Your task to perform on an android device: change alarm snooze length Image 0: 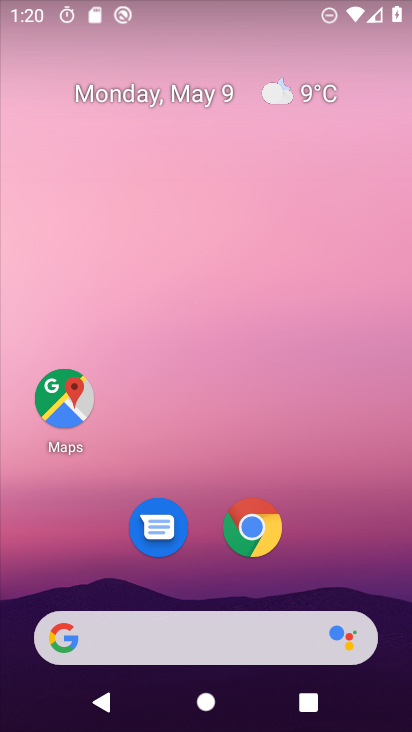
Step 0: drag from (189, 536) to (296, 18)
Your task to perform on an android device: change alarm snooze length Image 1: 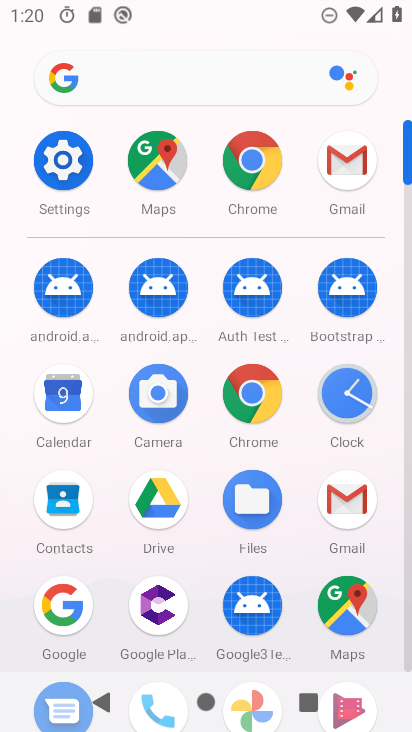
Step 1: click (355, 391)
Your task to perform on an android device: change alarm snooze length Image 2: 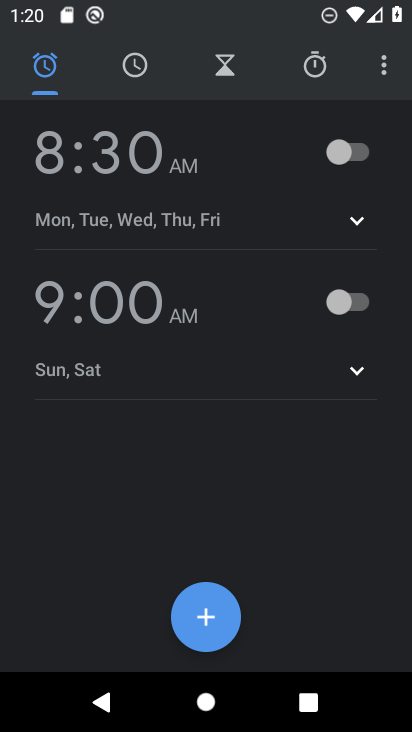
Step 2: click (389, 56)
Your task to perform on an android device: change alarm snooze length Image 3: 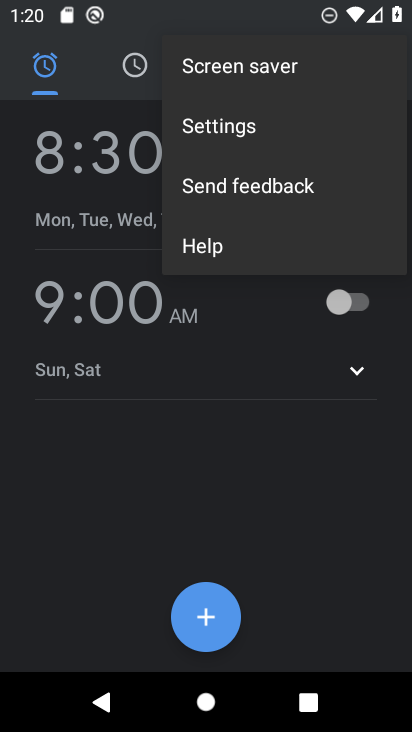
Step 3: click (315, 121)
Your task to perform on an android device: change alarm snooze length Image 4: 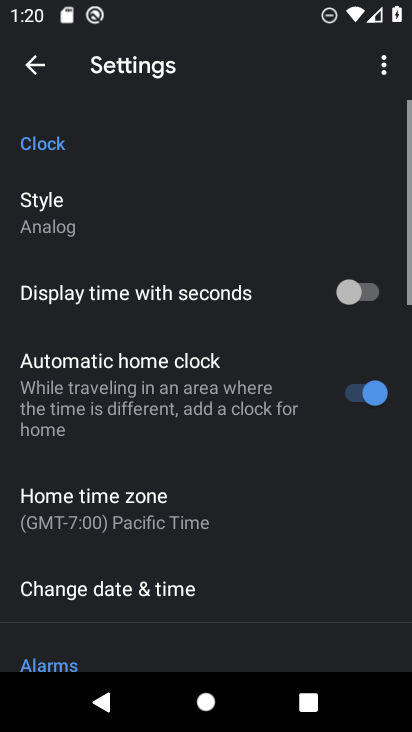
Step 4: drag from (210, 578) to (262, 5)
Your task to perform on an android device: change alarm snooze length Image 5: 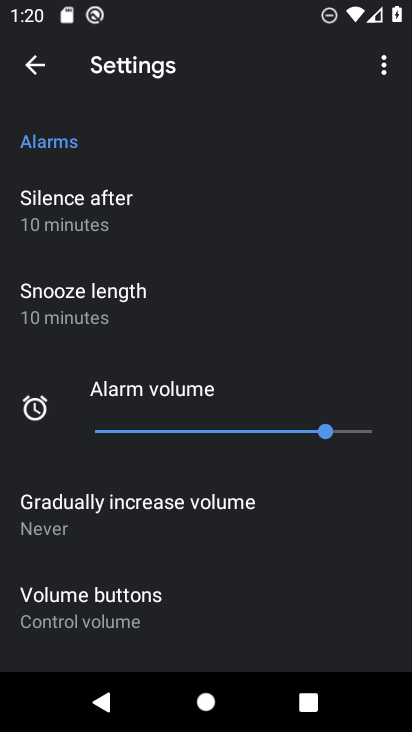
Step 5: click (116, 300)
Your task to perform on an android device: change alarm snooze length Image 6: 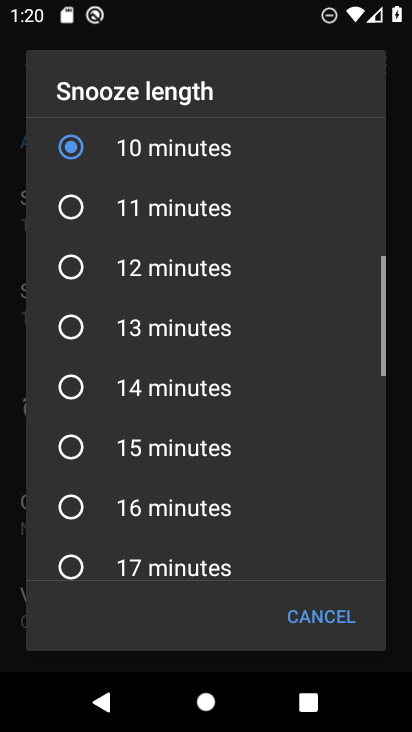
Step 6: click (86, 325)
Your task to perform on an android device: change alarm snooze length Image 7: 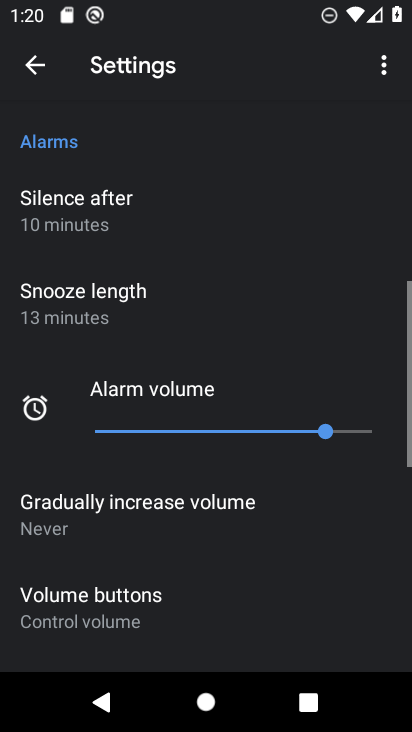
Step 7: task complete